Your task to perform on an android device: Toggle the flashlight Image 0: 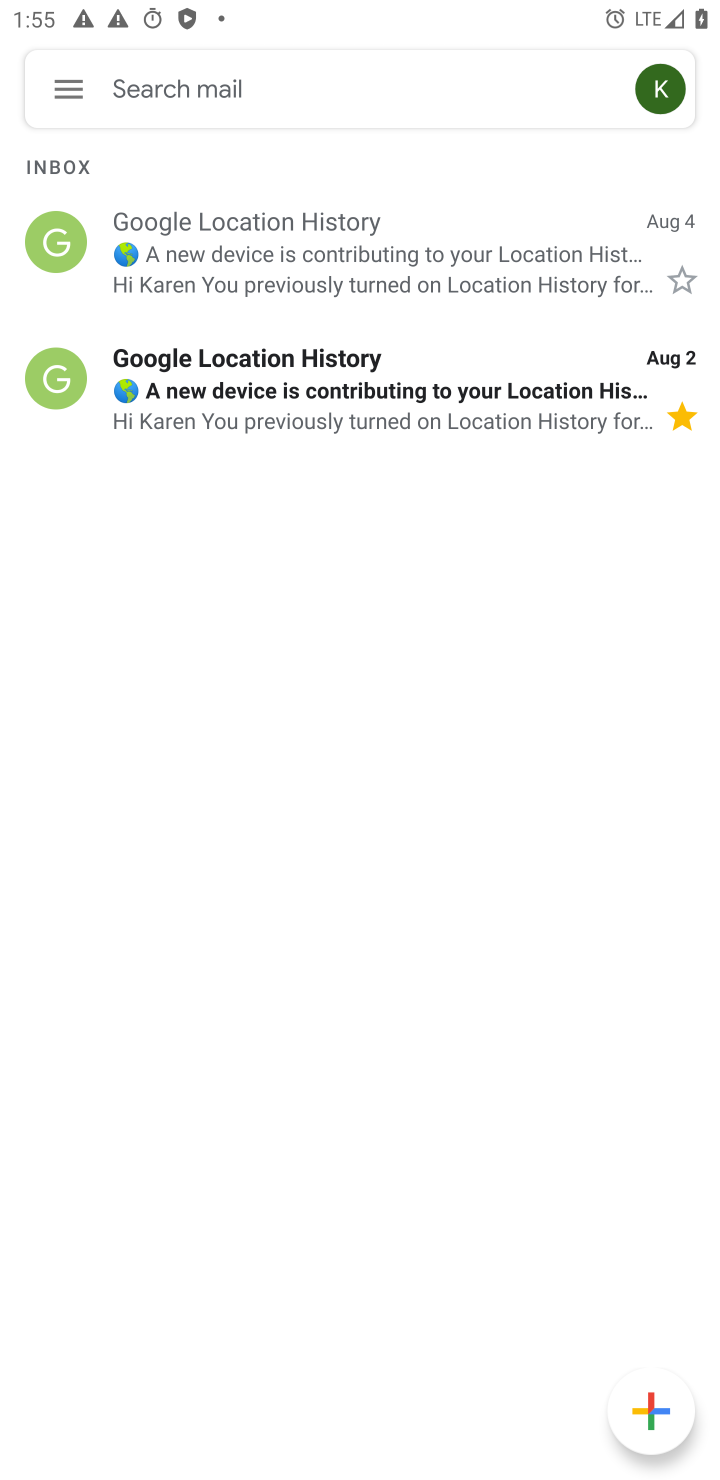
Step 0: press home button
Your task to perform on an android device: Toggle the flashlight Image 1: 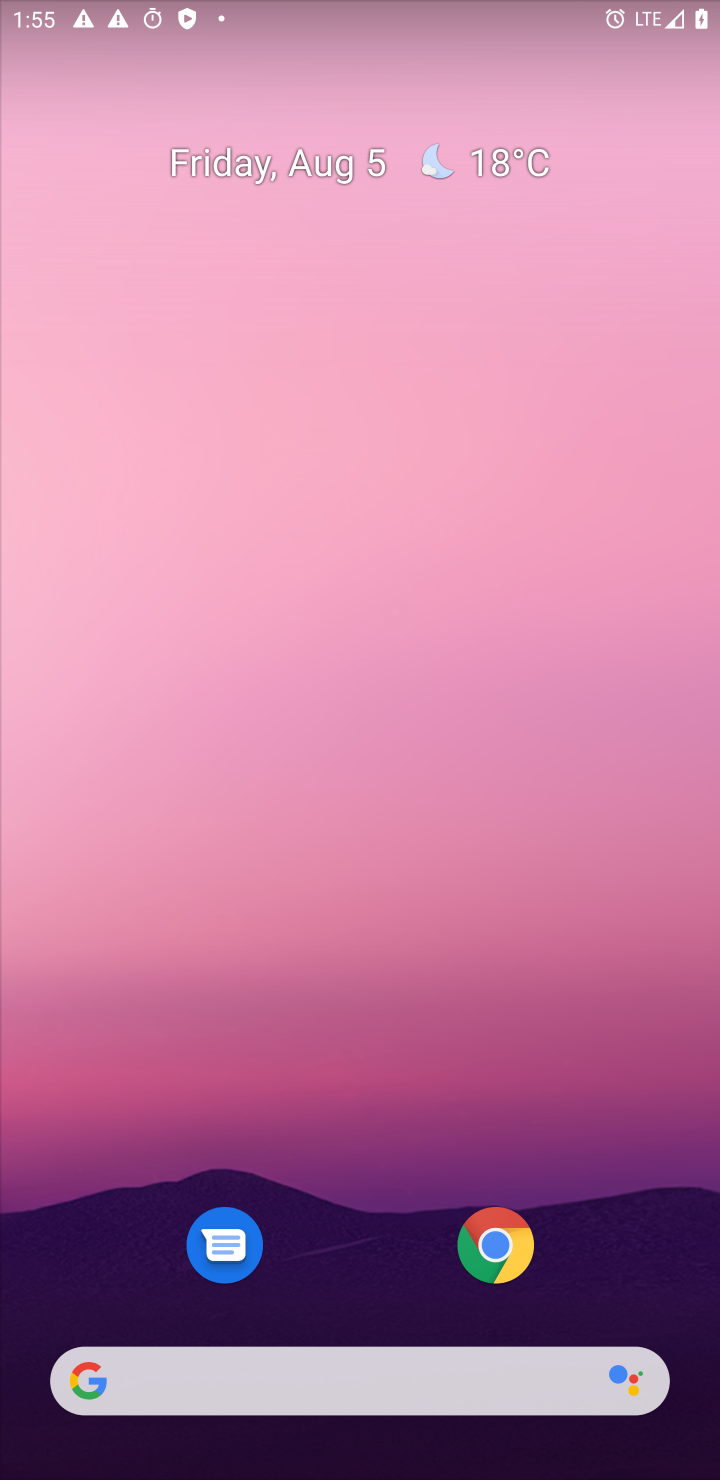
Step 1: task complete